Your task to perform on an android device: change the upload size in google photos Image 0: 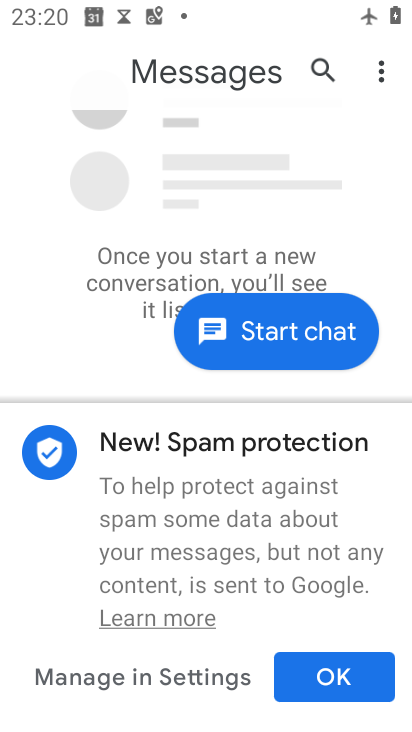
Step 0: press home button
Your task to perform on an android device: change the upload size in google photos Image 1: 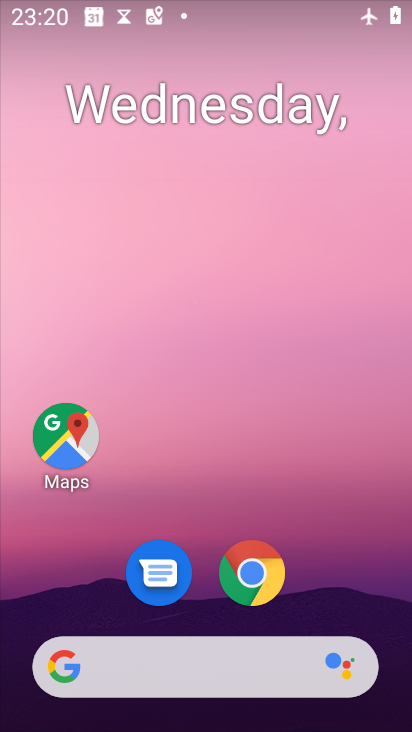
Step 1: drag from (312, 572) to (304, 309)
Your task to perform on an android device: change the upload size in google photos Image 2: 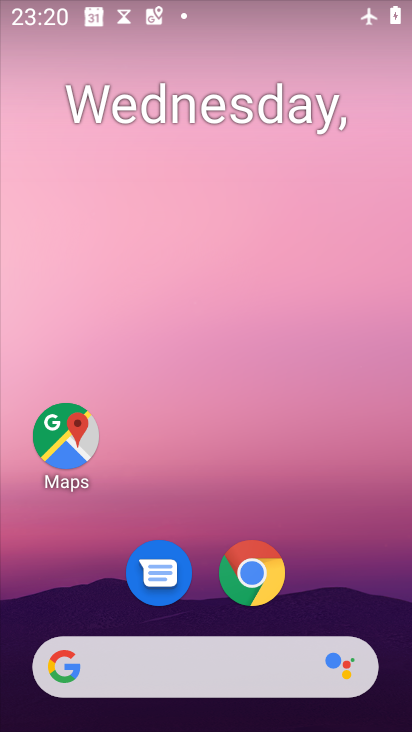
Step 2: drag from (256, 636) to (281, 307)
Your task to perform on an android device: change the upload size in google photos Image 3: 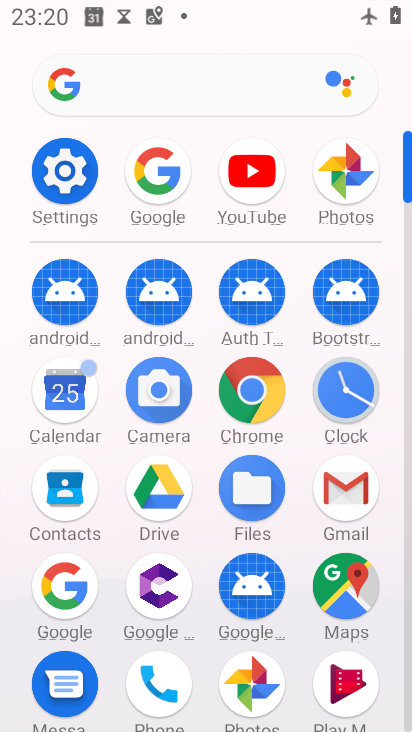
Step 3: click (233, 675)
Your task to perform on an android device: change the upload size in google photos Image 4: 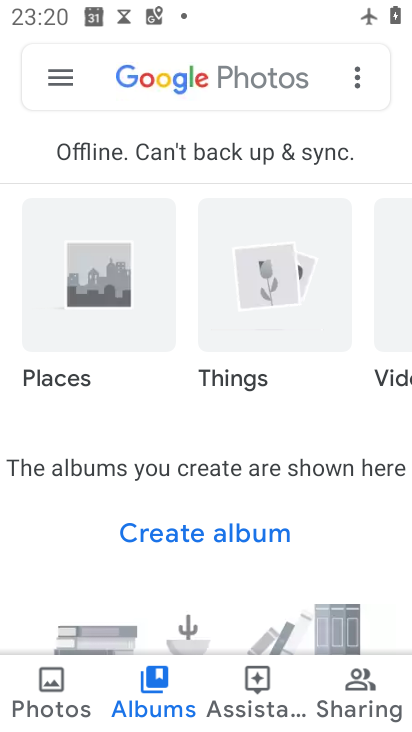
Step 4: click (51, 65)
Your task to perform on an android device: change the upload size in google photos Image 5: 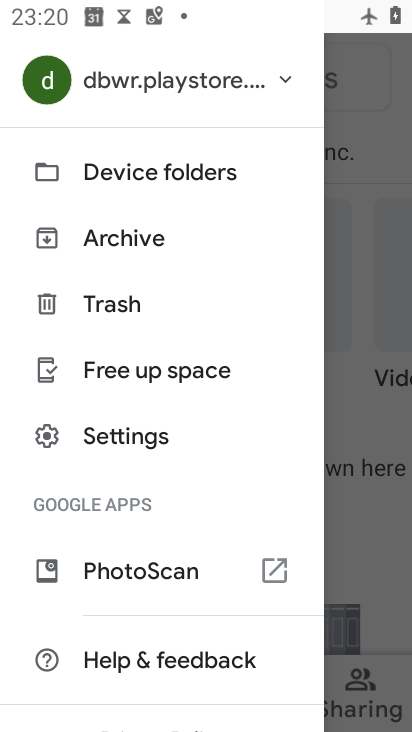
Step 5: click (126, 433)
Your task to perform on an android device: change the upload size in google photos Image 6: 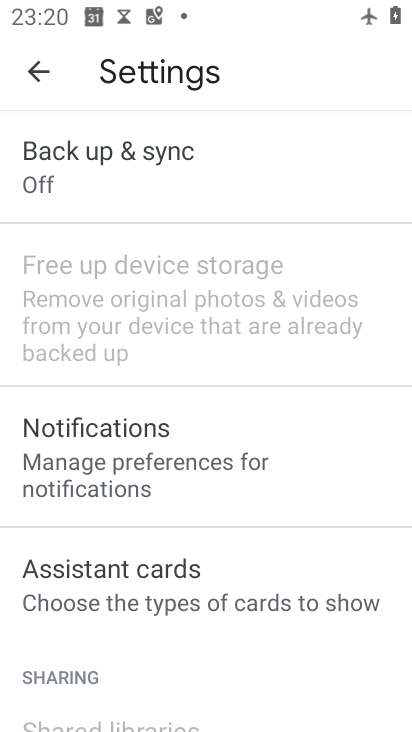
Step 6: click (134, 180)
Your task to perform on an android device: change the upload size in google photos Image 7: 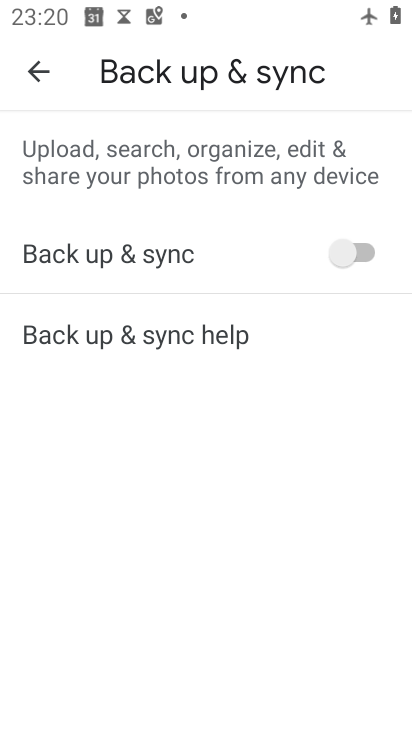
Step 7: click (46, 73)
Your task to perform on an android device: change the upload size in google photos Image 8: 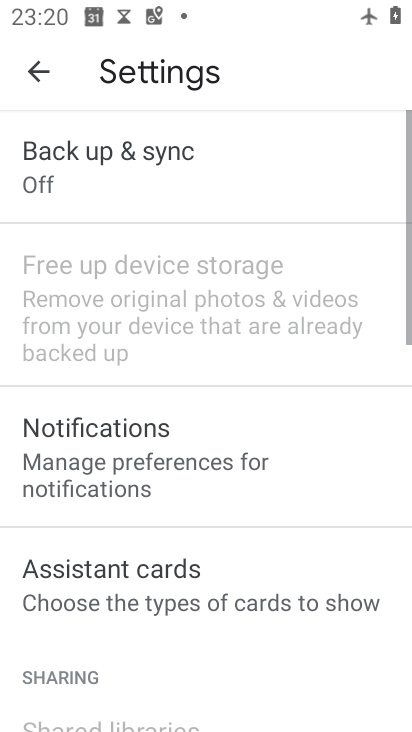
Step 8: drag from (183, 275) to (184, 649)
Your task to perform on an android device: change the upload size in google photos Image 9: 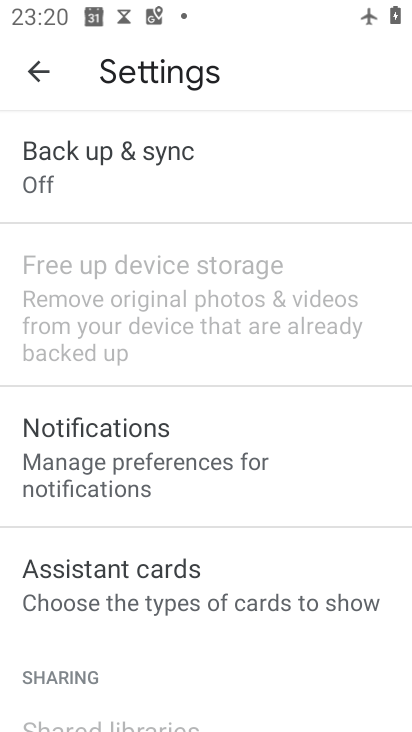
Step 9: click (130, 289)
Your task to perform on an android device: change the upload size in google photos Image 10: 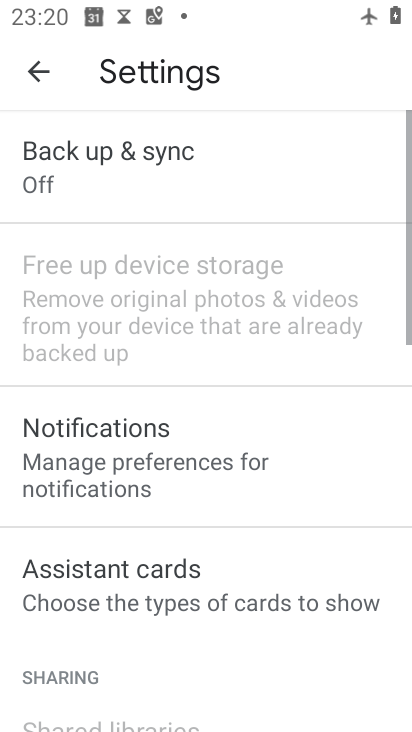
Step 10: click (119, 446)
Your task to perform on an android device: change the upload size in google photos Image 11: 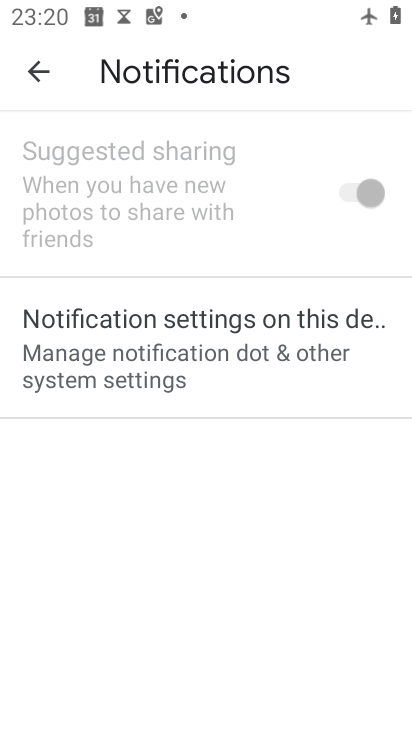
Step 11: click (146, 351)
Your task to perform on an android device: change the upload size in google photos Image 12: 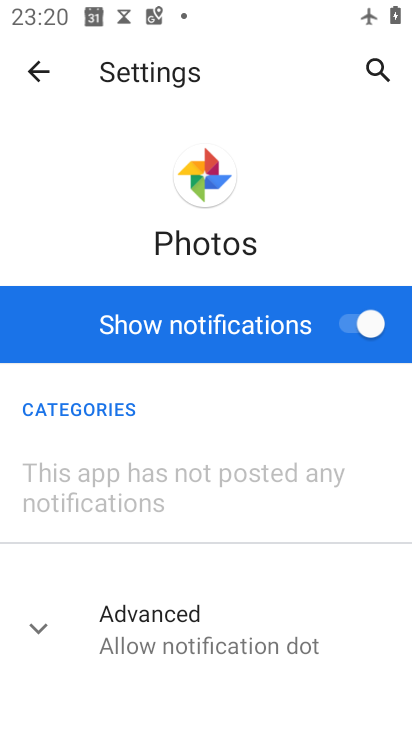
Step 12: drag from (240, 475) to (240, 266)
Your task to perform on an android device: change the upload size in google photos Image 13: 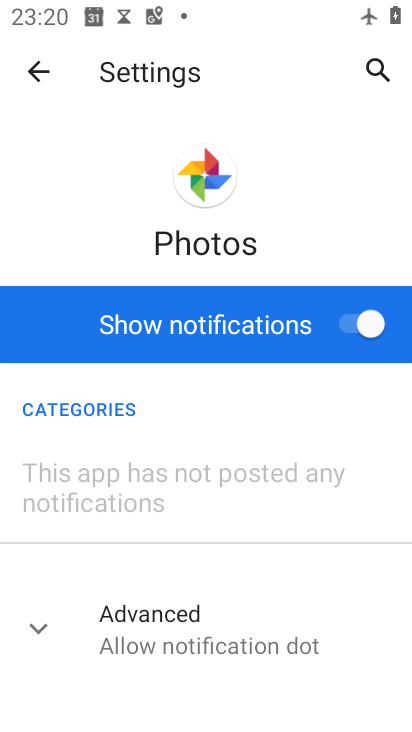
Step 13: drag from (181, 582) to (156, 371)
Your task to perform on an android device: change the upload size in google photos Image 14: 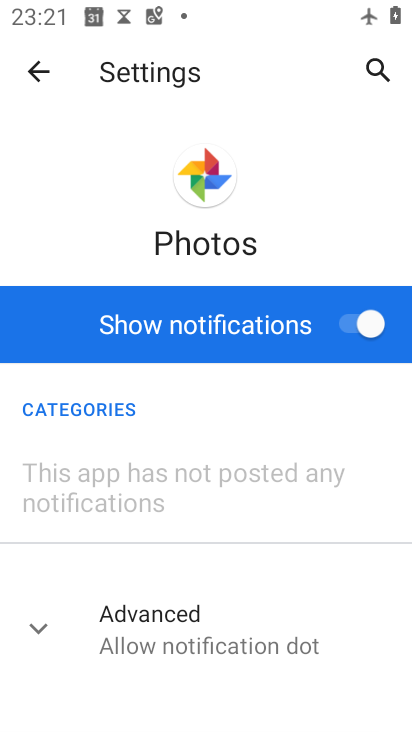
Step 14: click (21, 60)
Your task to perform on an android device: change the upload size in google photos Image 15: 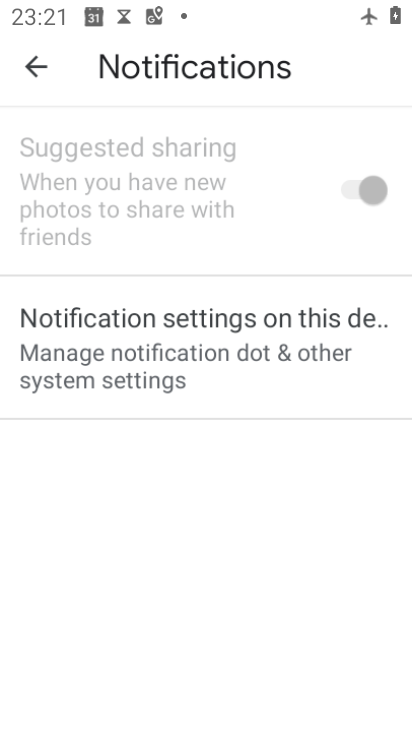
Step 15: click (24, 61)
Your task to perform on an android device: change the upload size in google photos Image 16: 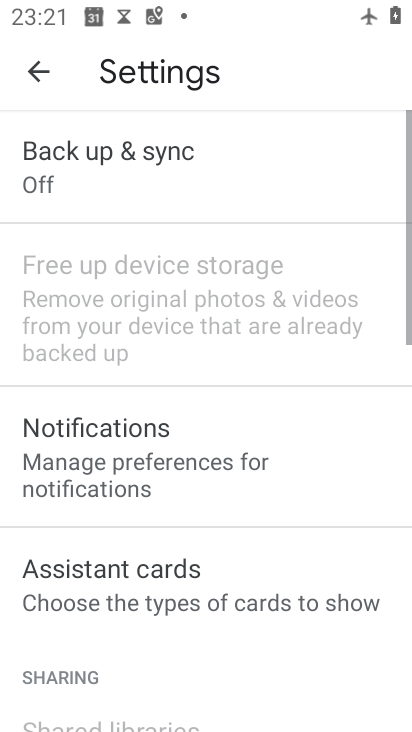
Step 16: drag from (148, 612) to (171, 273)
Your task to perform on an android device: change the upload size in google photos Image 17: 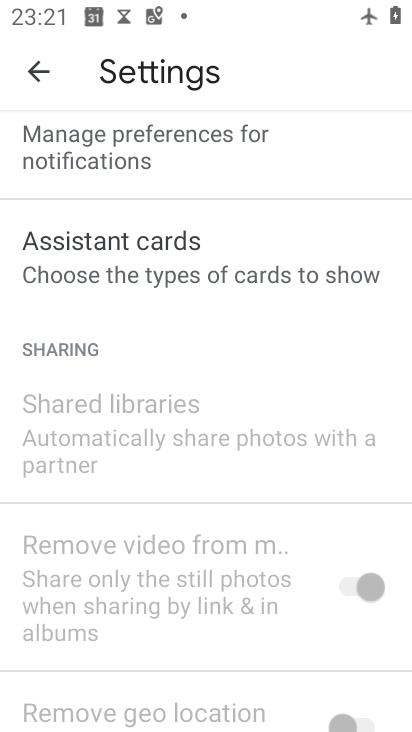
Step 17: drag from (145, 295) to (157, 619)
Your task to perform on an android device: change the upload size in google photos Image 18: 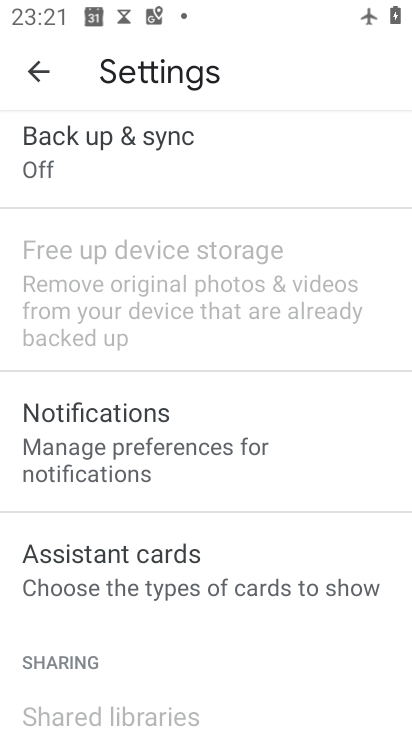
Step 18: click (41, 86)
Your task to perform on an android device: change the upload size in google photos Image 19: 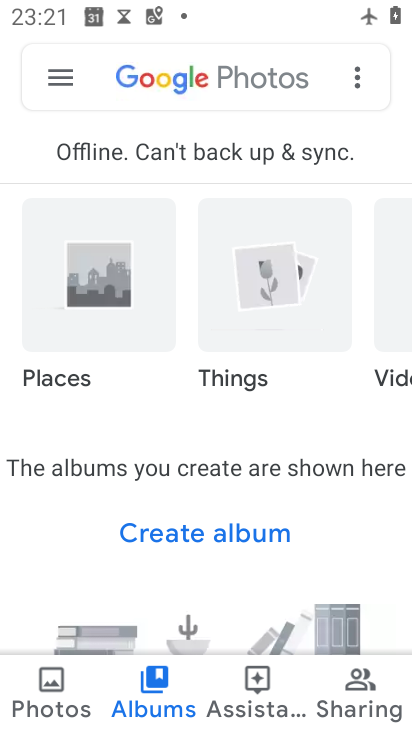
Step 19: click (68, 70)
Your task to perform on an android device: change the upload size in google photos Image 20: 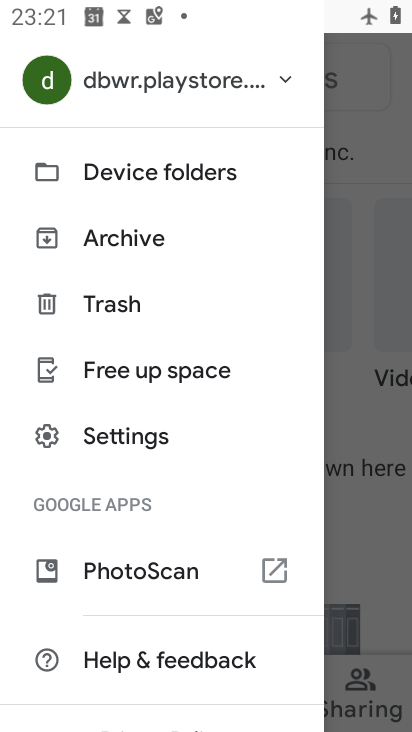
Step 20: click (139, 430)
Your task to perform on an android device: change the upload size in google photos Image 21: 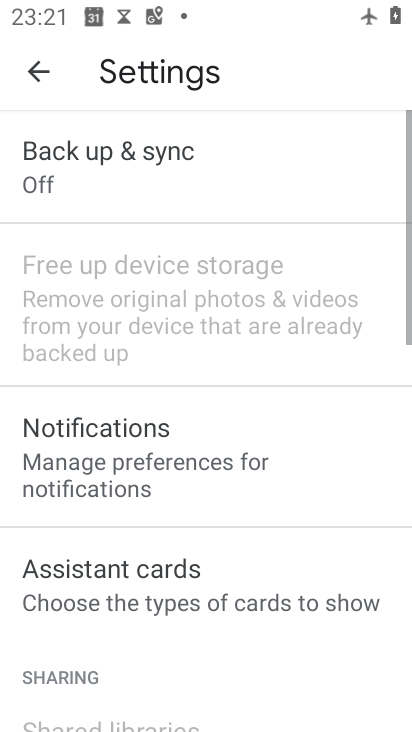
Step 21: click (82, 145)
Your task to perform on an android device: change the upload size in google photos Image 22: 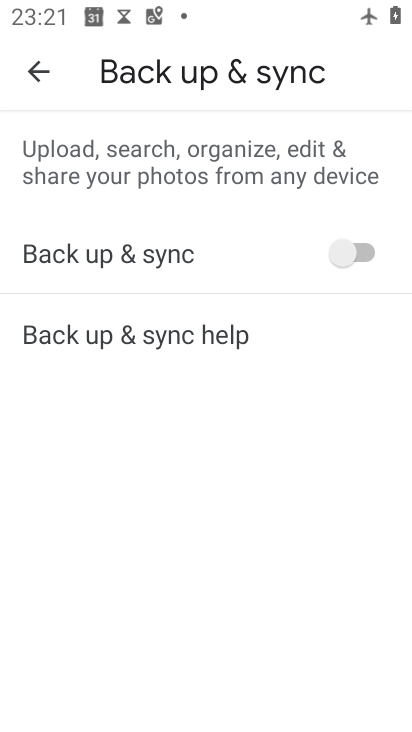
Step 22: click (361, 253)
Your task to perform on an android device: change the upload size in google photos Image 23: 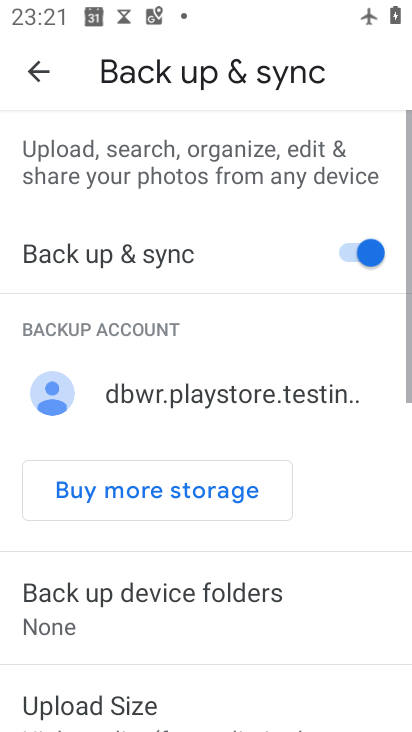
Step 23: drag from (219, 590) to (221, 318)
Your task to perform on an android device: change the upload size in google photos Image 24: 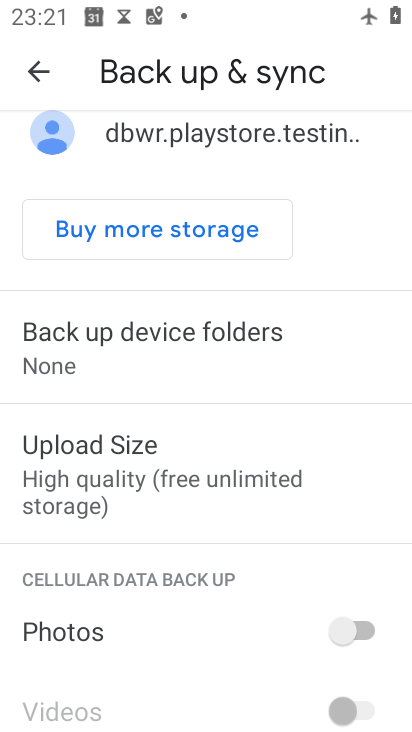
Step 24: click (157, 475)
Your task to perform on an android device: change the upload size in google photos Image 25: 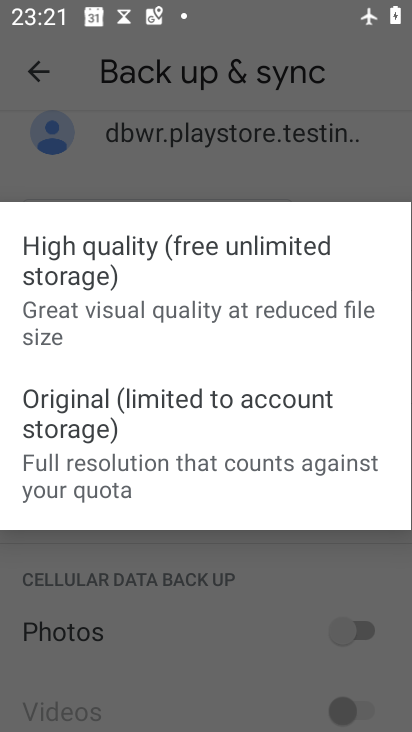
Step 25: click (150, 440)
Your task to perform on an android device: change the upload size in google photos Image 26: 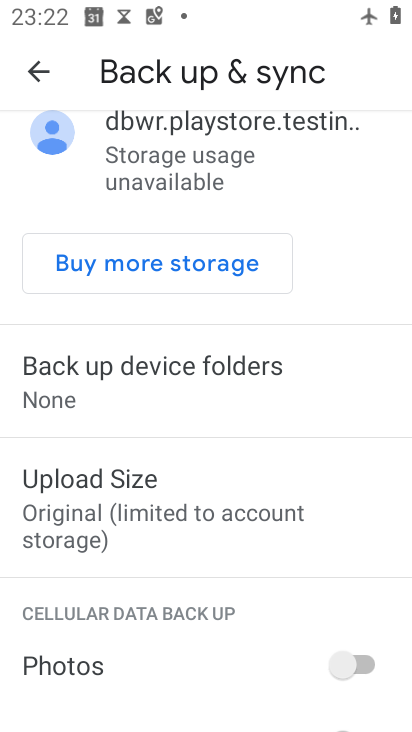
Step 26: task complete